Your task to perform on an android device: See recent photos Image 0: 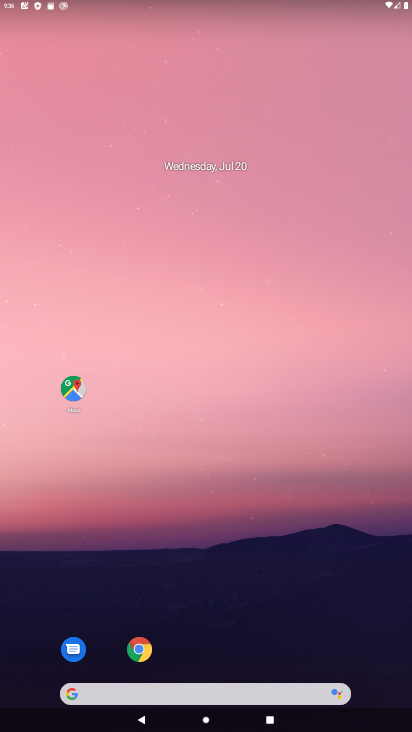
Step 0: press home button
Your task to perform on an android device: See recent photos Image 1: 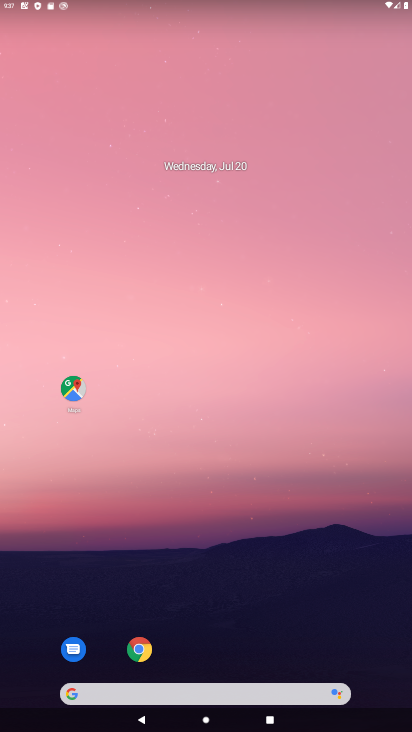
Step 1: drag from (270, 661) to (251, 240)
Your task to perform on an android device: See recent photos Image 2: 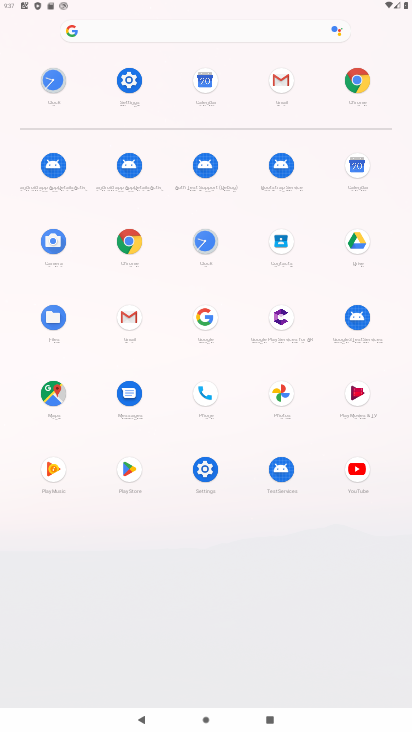
Step 2: click (276, 392)
Your task to perform on an android device: See recent photos Image 3: 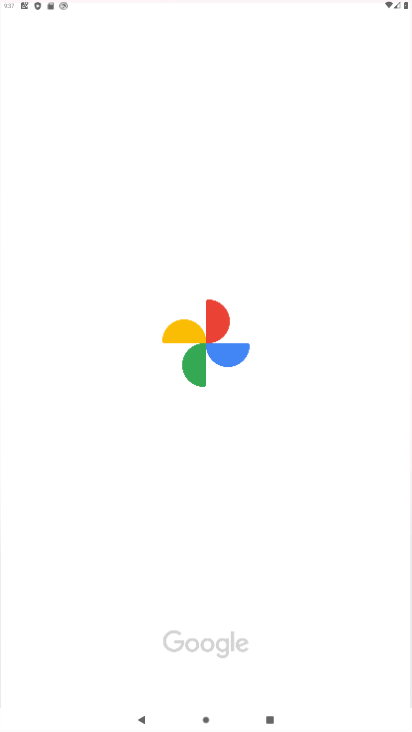
Step 3: task complete